Your task to perform on an android device: Clear the cart on walmart.com. Search for "razer deathadder" on walmart.com, select the first entry, add it to the cart, then select checkout. Image 0: 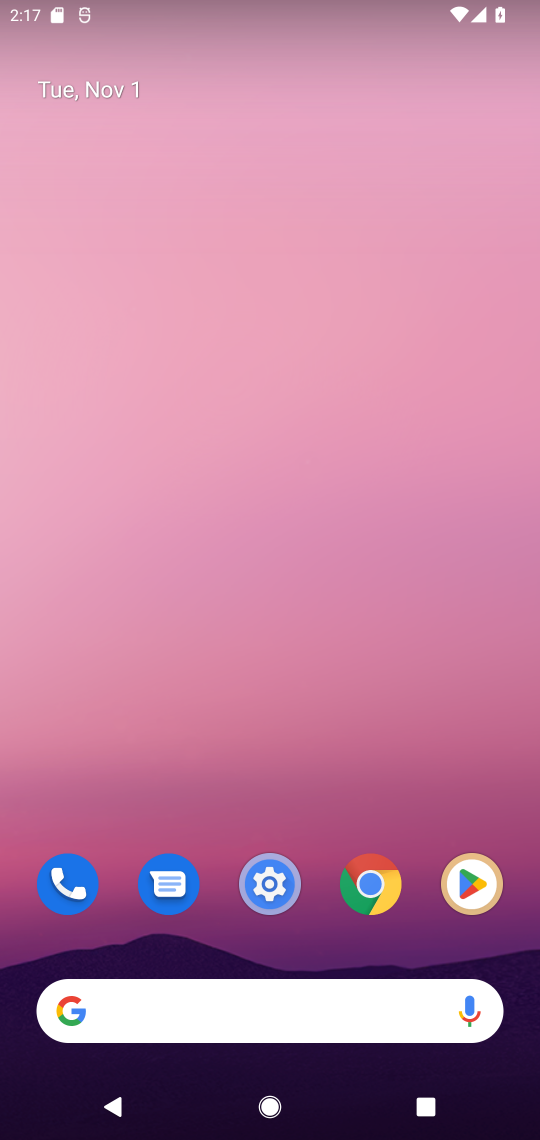
Step 0: click (99, 1007)
Your task to perform on an android device: Clear the cart on walmart.com. Search for "razer deathadder" on walmart.com, select the first entry, add it to the cart, then select checkout. Image 1: 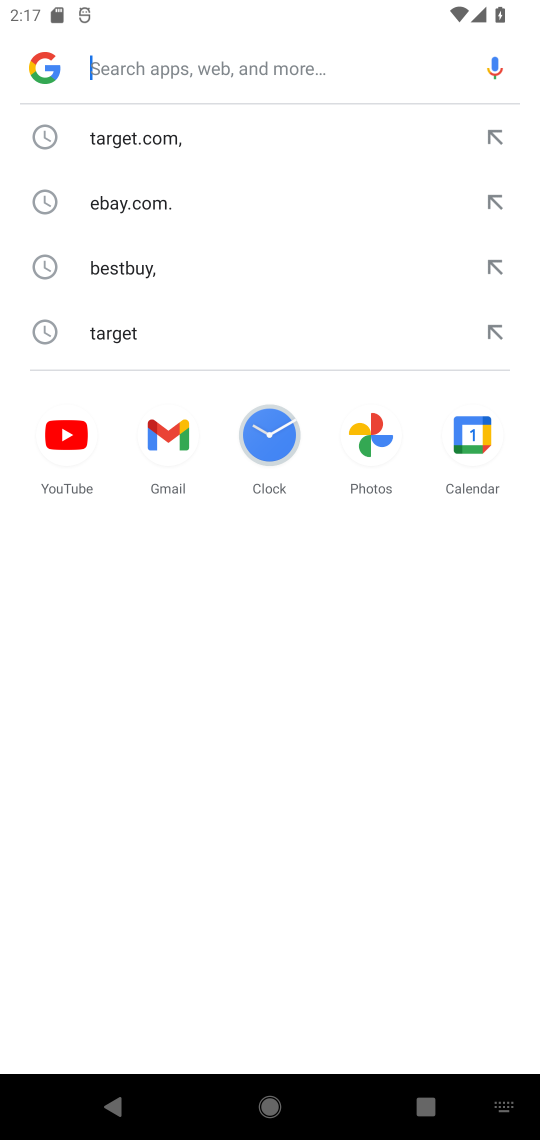
Step 1: type " walmart.com"
Your task to perform on an android device: Clear the cart on walmart.com. Search for "razer deathadder" on walmart.com, select the first entry, add it to the cart, then select checkout. Image 2: 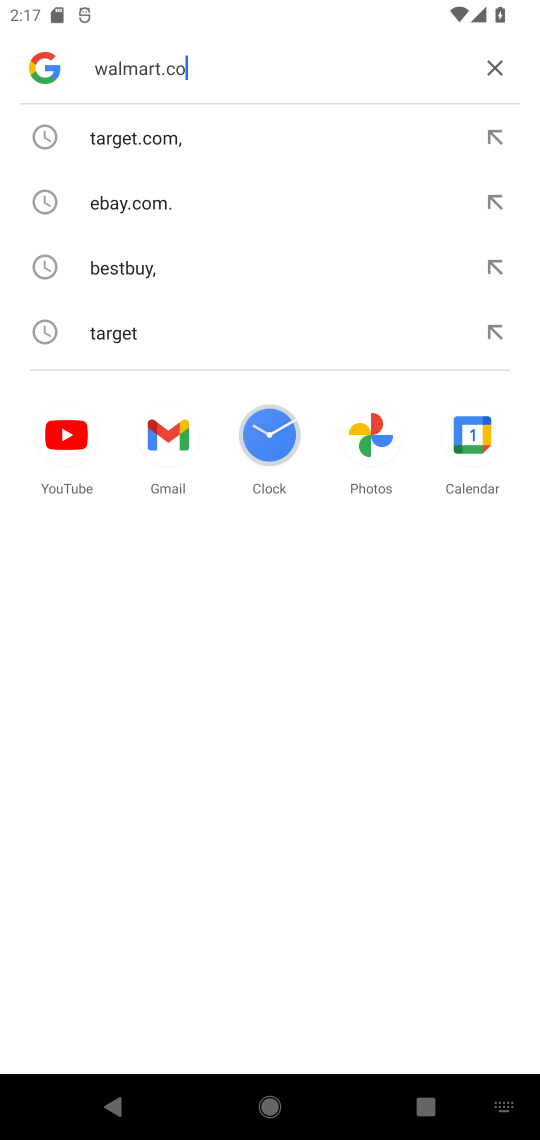
Step 2: press enter
Your task to perform on an android device: Clear the cart on walmart.com. Search for "razer deathadder" on walmart.com, select the first entry, add it to the cart, then select checkout. Image 3: 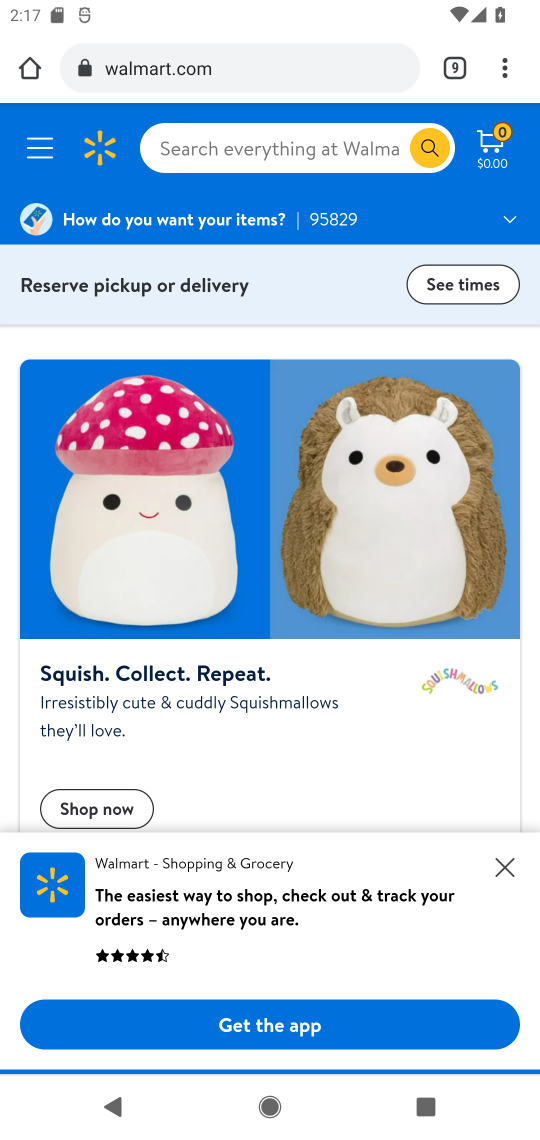
Step 3: click (488, 139)
Your task to perform on an android device: Clear the cart on walmart.com. Search for "razer deathadder" on walmart.com, select the first entry, add it to the cart, then select checkout. Image 4: 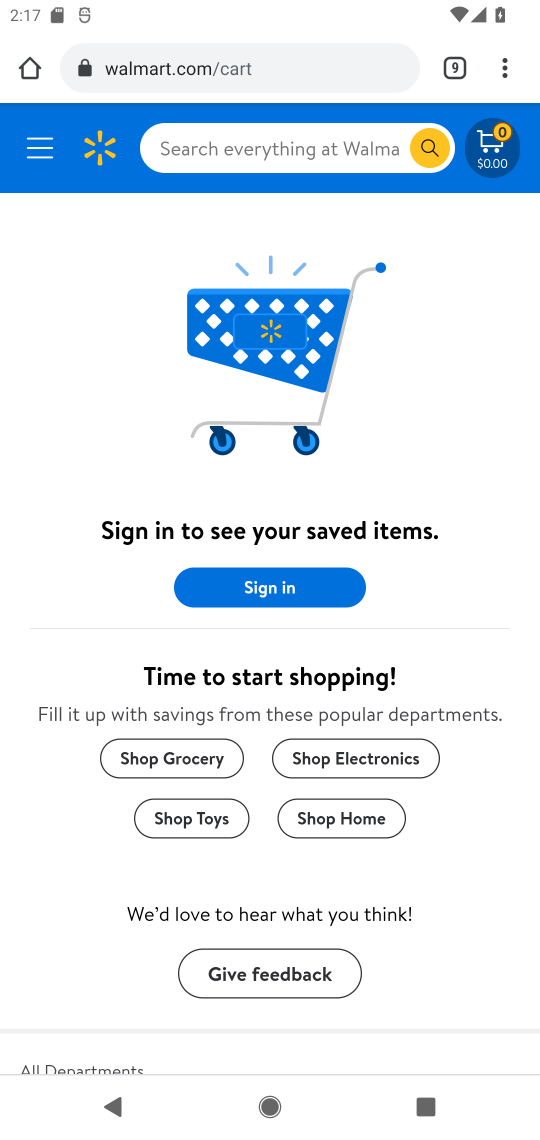
Step 4: click (184, 140)
Your task to perform on an android device: Clear the cart on walmart.com. Search for "razer deathadder" on walmart.com, select the first entry, add it to the cart, then select checkout. Image 5: 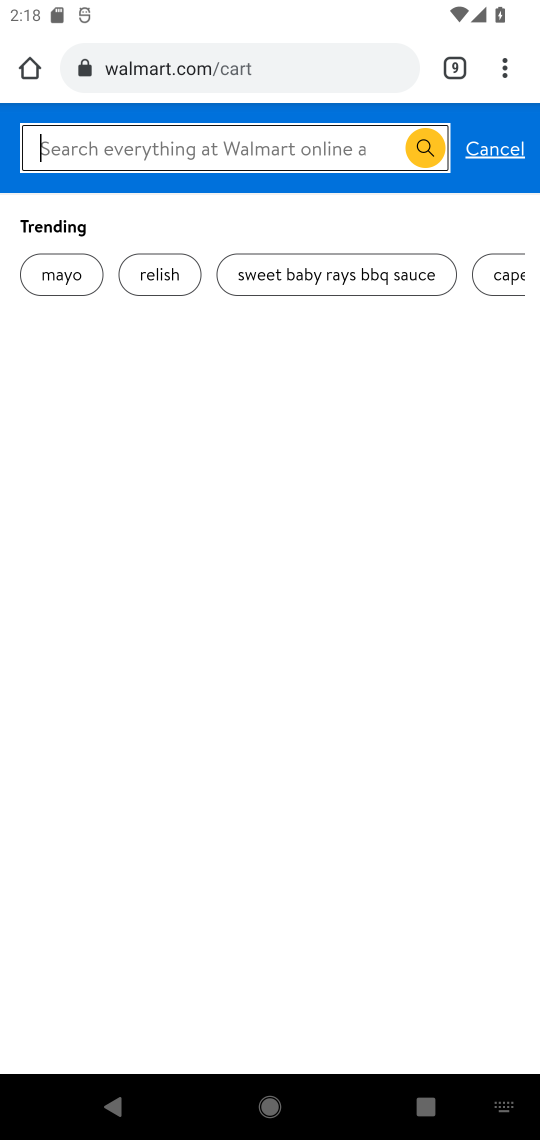
Step 5: type "razer deathadder"
Your task to perform on an android device: Clear the cart on walmart.com. Search for "razer deathadder" on walmart.com, select the first entry, add it to the cart, then select checkout. Image 6: 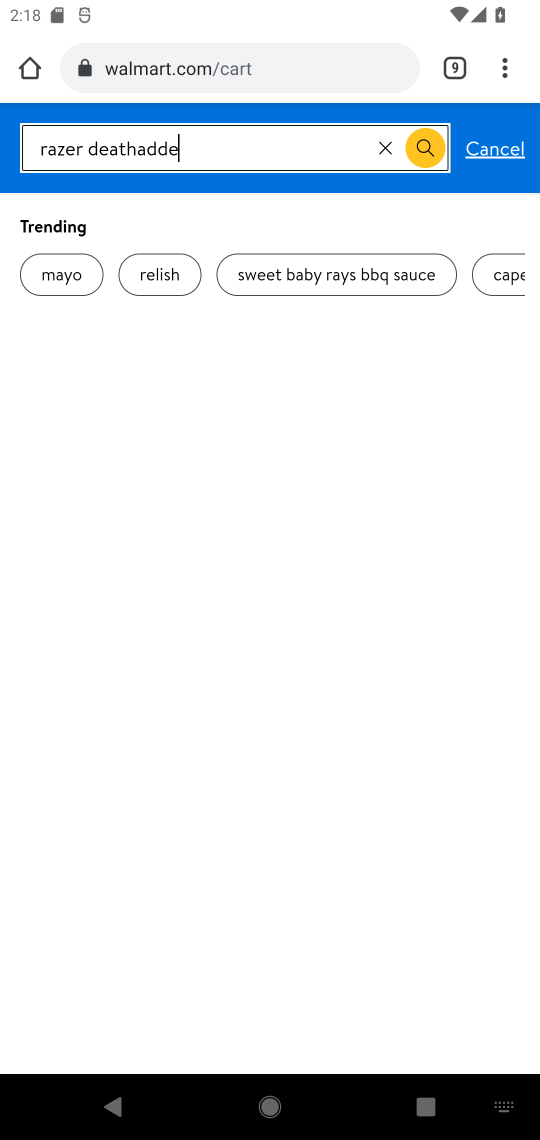
Step 6: press enter
Your task to perform on an android device: Clear the cart on walmart.com. Search for "razer deathadder" on walmart.com, select the first entry, add it to the cart, then select checkout. Image 7: 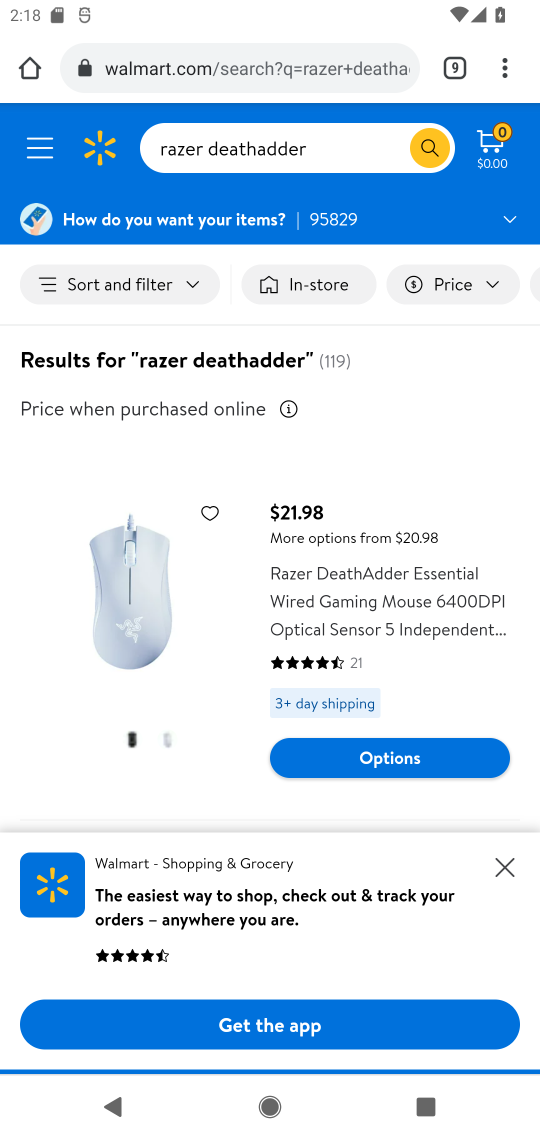
Step 7: click (502, 864)
Your task to perform on an android device: Clear the cart on walmart.com. Search for "razer deathadder" on walmart.com, select the first entry, add it to the cart, then select checkout. Image 8: 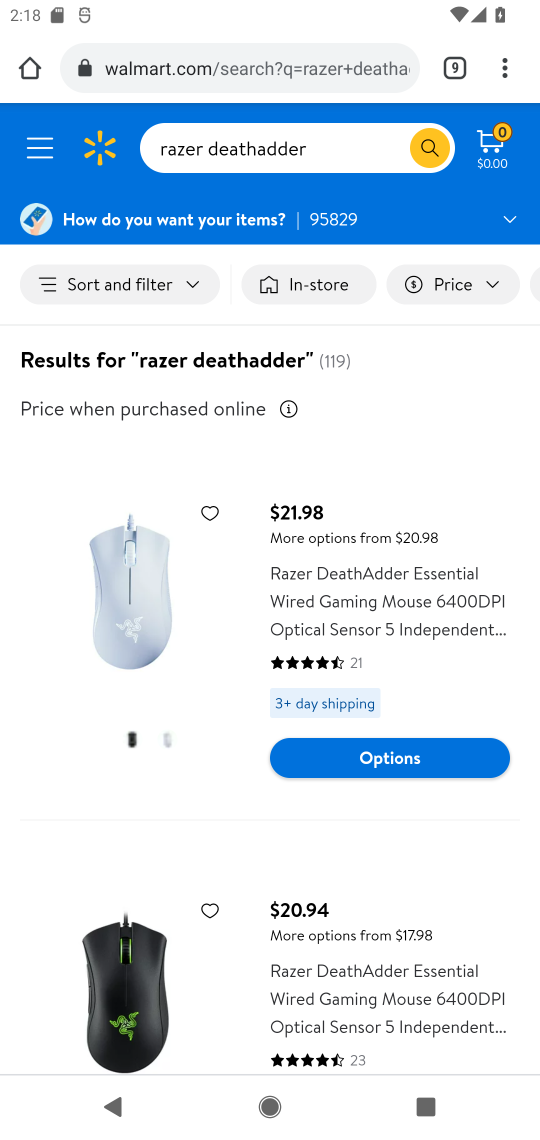
Step 8: click (343, 585)
Your task to perform on an android device: Clear the cart on walmart.com. Search for "razer deathadder" on walmart.com, select the first entry, add it to the cart, then select checkout. Image 9: 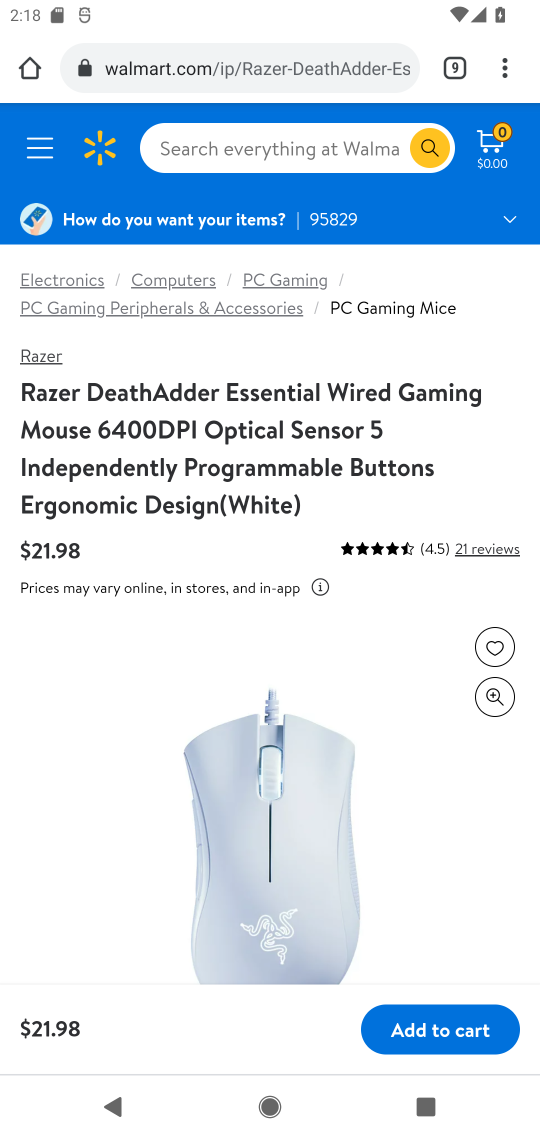
Step 9: click (427, 1035)
Your task to perform on an android device: Clear the cart on walmart.com. Search for "razer deathadder" on walmart.com, select the first entry, add it to the cart, then select checkout. Image 10: 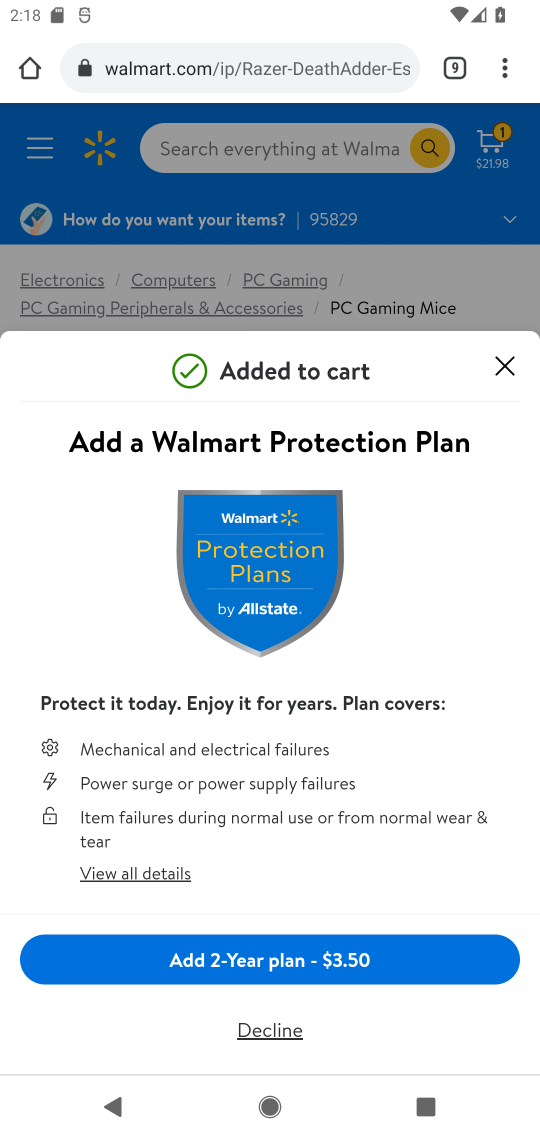
Step 10: click (270, 968)
Your task to perform on an android device: Clear the cart on walmart.com. Search for "razer deathadder" on walmart.com, select the first entry, add it to the cart, then select checkout. Image 11: 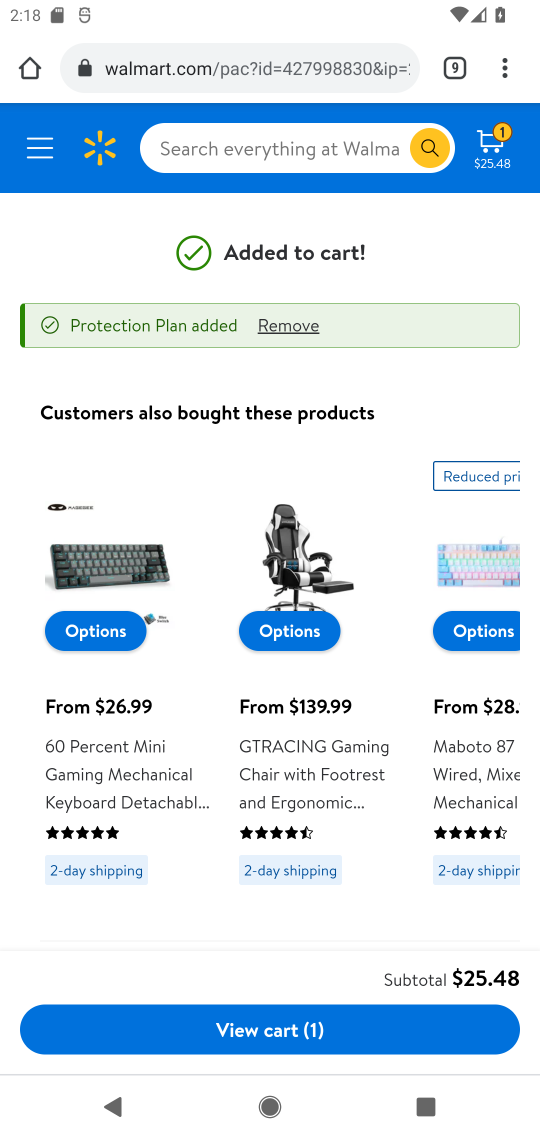
Step 11: click (330, 1025)
Your task to perform on an android device: Clear the cart on walmart.com. Search for "razer deathadder" on walmart.com, select the first entry, add it to the cart, then select checkout. Image 12: 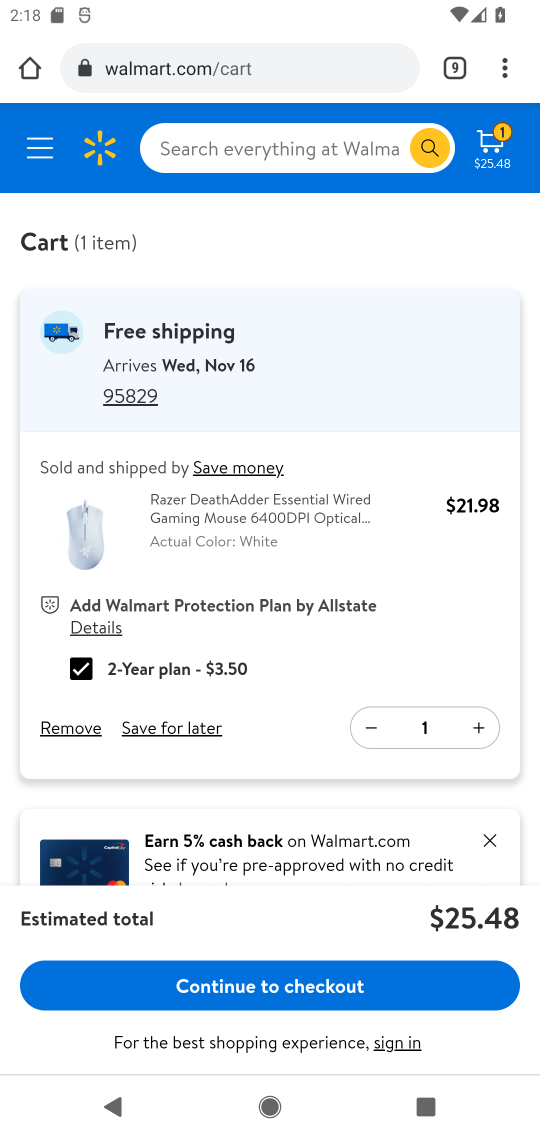
Step 12: click (313, 992)
Your task to perform on an android device: Clear the cart on walmart.com. Search for "razer deathadder" on walmart.com, select the first entry, add it to the cart, then select checkout. Image 13: 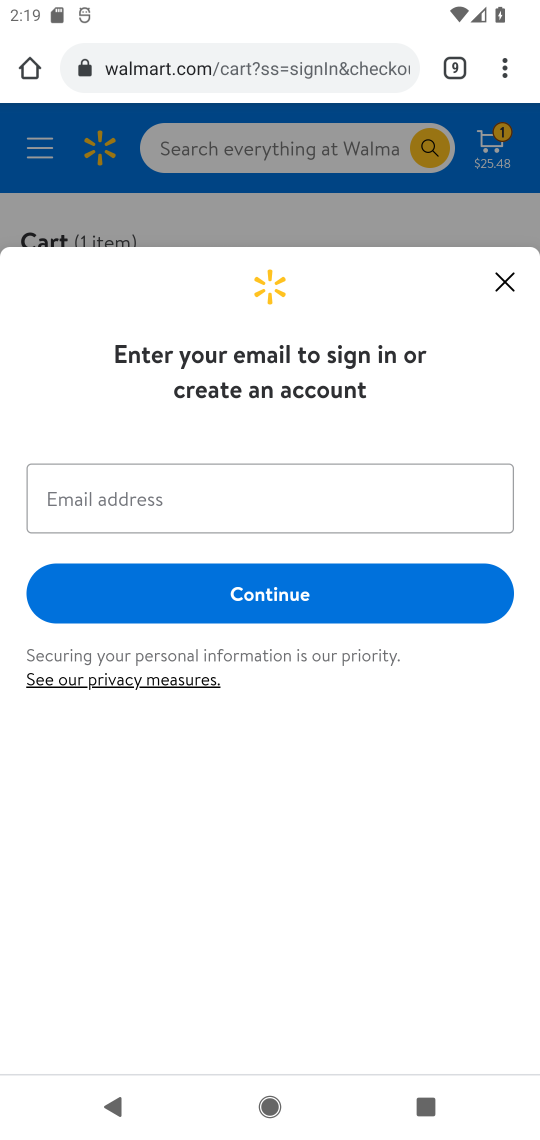
Step 13: task complete